Your task to perform on an android device: open a bookmark in the chrome app Image 0: 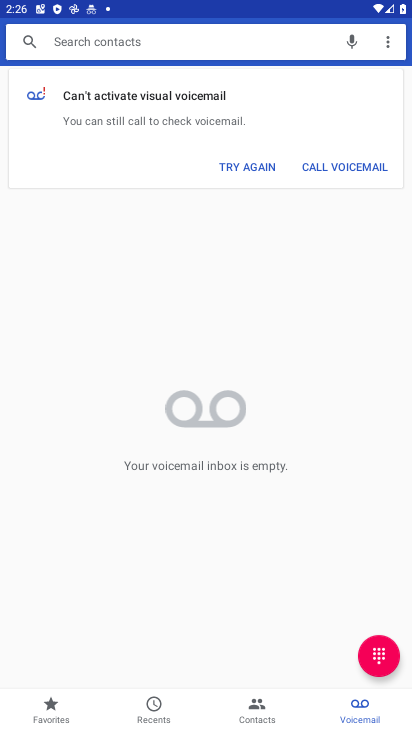
Step 0: press home button
Your task to perform on an android device: open a bookmark in the chrome app Image 1: 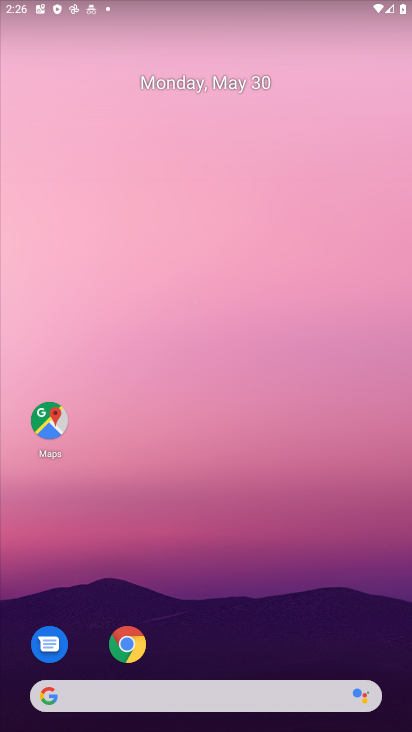
Step 1: press home button
Your task to perform on an android device: open a bookmark in the chrome app Image 2: 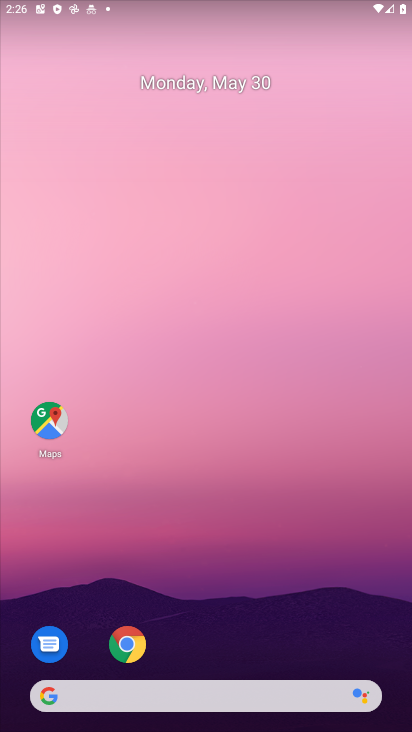
Step 2: click (137, 651)
Your task to perform on an android device: open a bookmark in the chrome app Image 3: 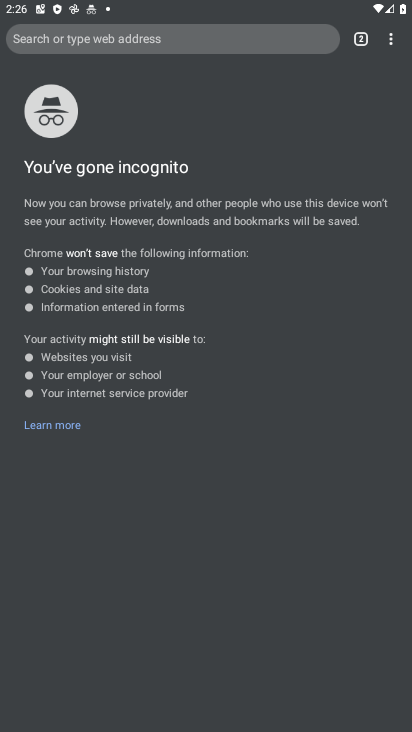
Step 3: click (156, 36)
Your task to perform on an android device: open a bookmark in the chrome app Image 4: 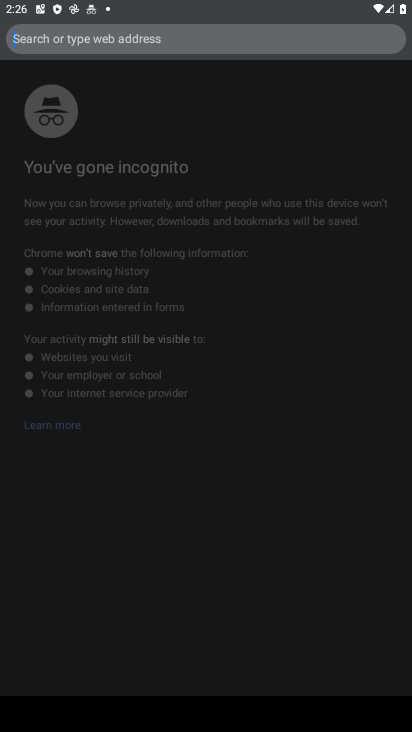
Step 4: press back button
Your task to perform on an android device: open a bookmark in the chrome app Image 5: 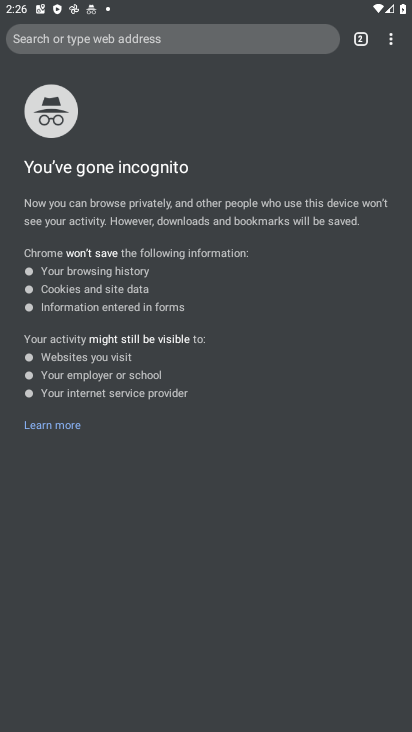
Step 5: click (389, 36)
Your task to perform on an android device: open a bookmark in the chrome app Image 6: 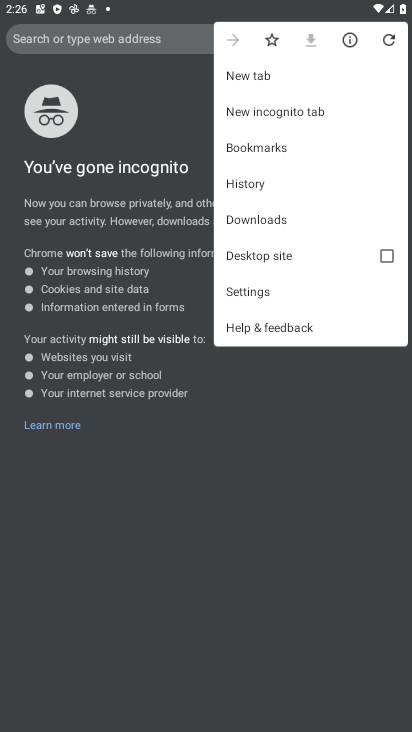
Step 6: click (351, 149)
Your task to perform on an android device: open a bookmark in the chrome app Image 7: 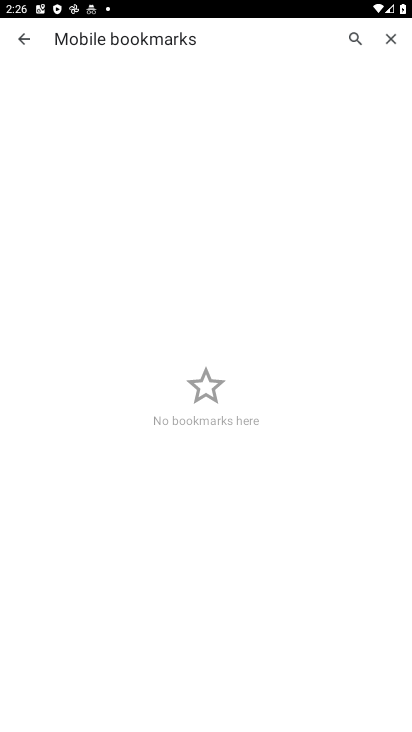
Step 7: task complete